Your task to perform on an android device: Open Maps and search for coffee Image 0: 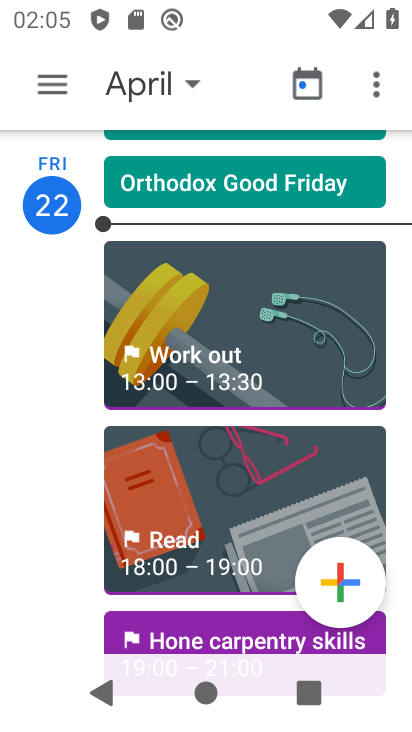
Step 0: press home button
Your task to perform on an android device: Open Maps and search for coffee Image 1: 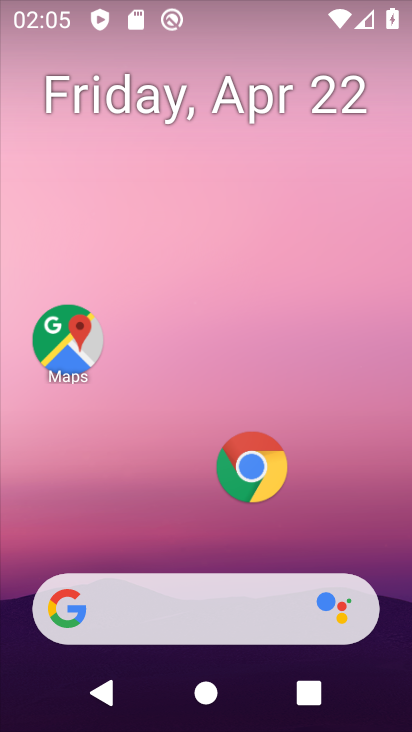
Step 1: drag from (220, 549) to (277, 224)
Your task to perform on an android device: Open Maps and search for coffee Image 2: 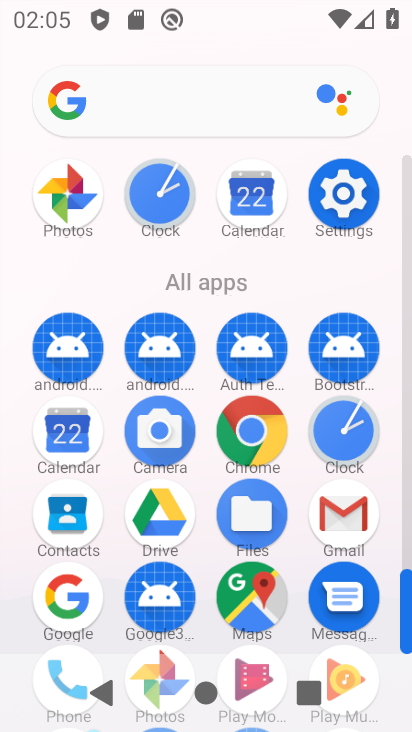
Step 2: click (265, 608)
Your task to perform on an android device: Open Maps and search for coffee Image 3: 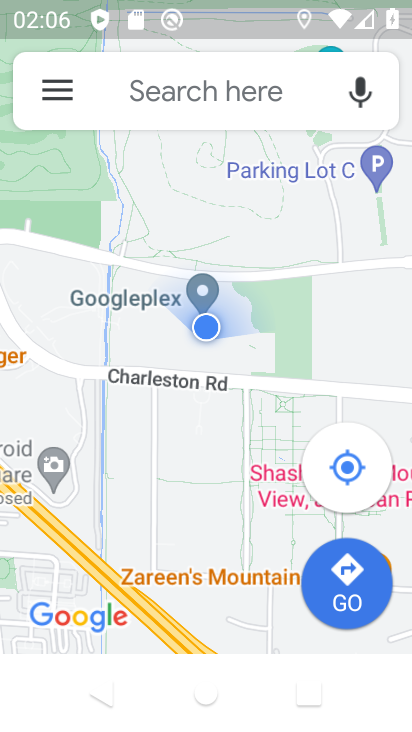
Step 3: click (197, 79)
Your task to perform on an android device: Open Maps and search for coffee Image 4: 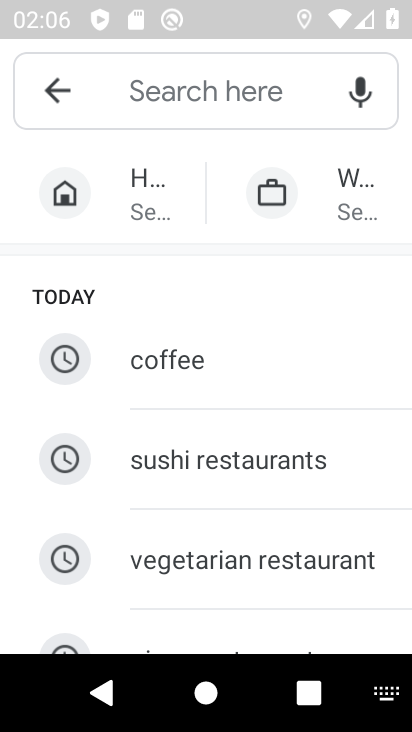
Step 4: type "coffee"
Your task to perform on an android device: Open Maps and search for coffee Image 5: 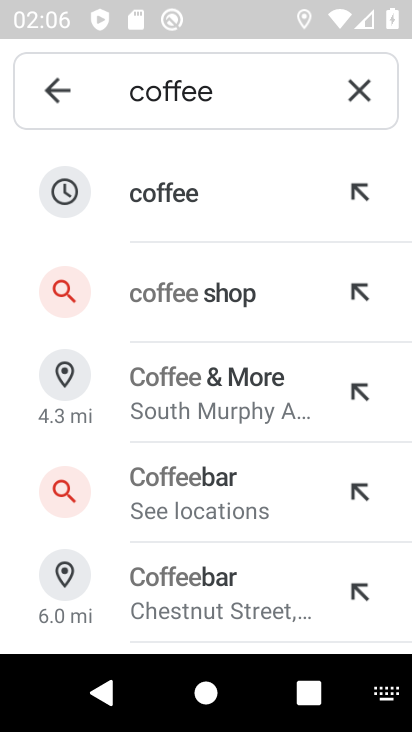
Step 5: click (246, 195)
Your task to perform on an android device: Open Maps and search for coffee Image 6: 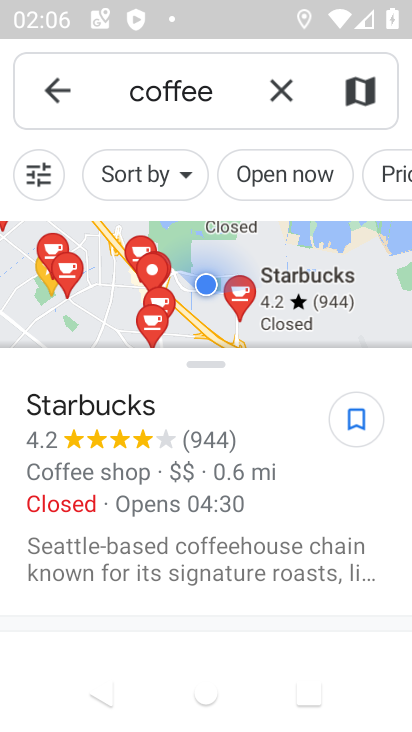
Step 6: task complete